Your task to perform on an android device: turn off priority inbox in the gmail app Image 0: 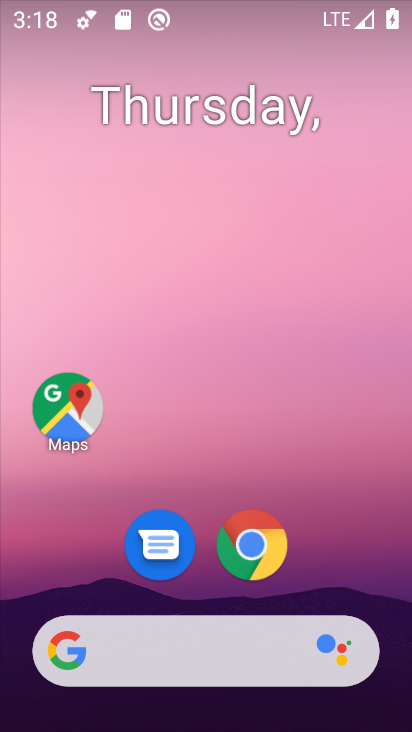
Step 0: drag from (320, 561) to (202, 38)
Your task to perform on an android device: turn off priority inbox in the gmail app Image 1: 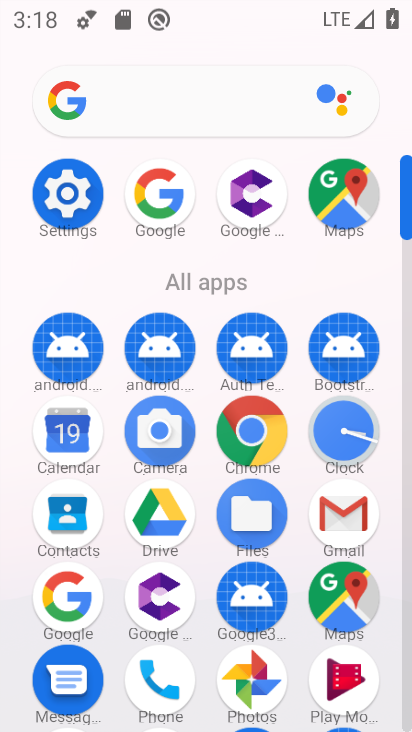
Step 1: click (343, 514)
Your task to perform on an android device: turn off priority inbox in the gmail app Image 2: 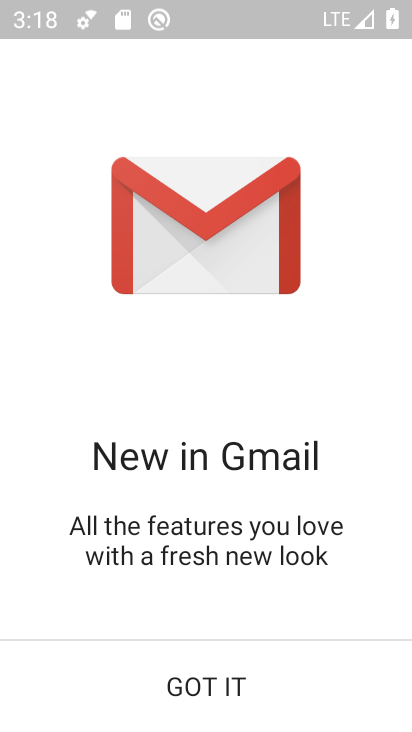
Step 2: click (205, 687)
Your task to perform on an android device: turn off priority inbox in the gmail app Image 3: 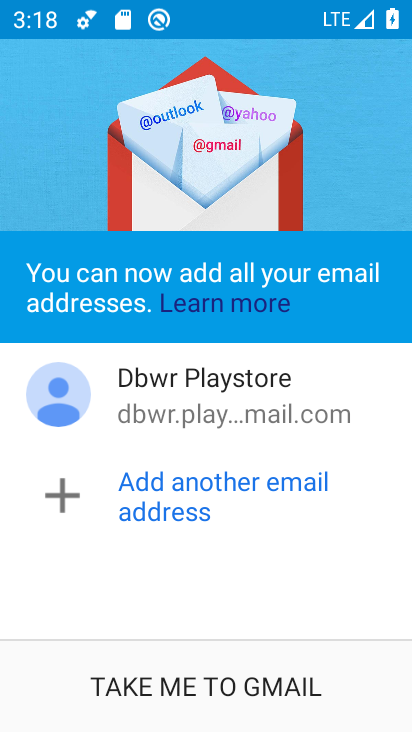
Step 3: click (205, 686)
Your task to perform on an android device: turn off priority inbox in the gmail app Image 4: 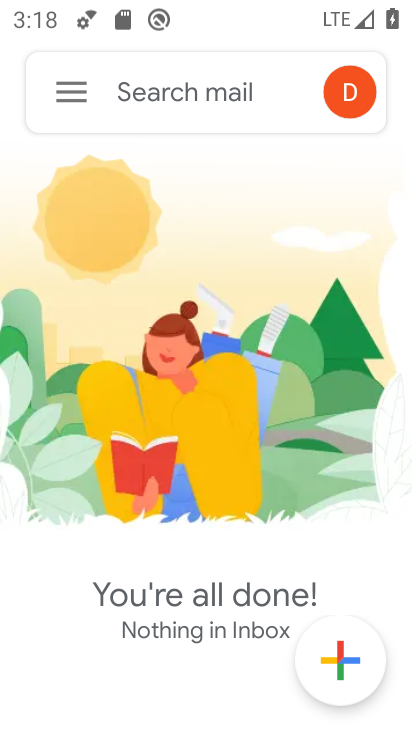
Step 4: click (73, 84)
Your task to perform on an android device: turn off priority inbox in the gmail app Image 5: 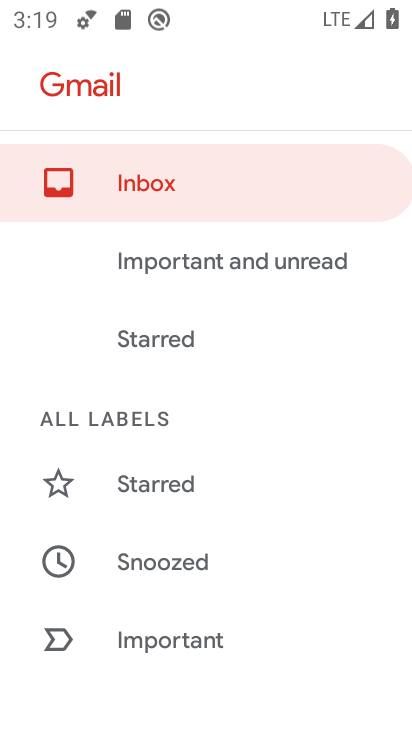
Step 5: drag from (215, 529) to (222, 413)
Your task to perform on an android device: turn off priority inbox in the gmail app Image 6: 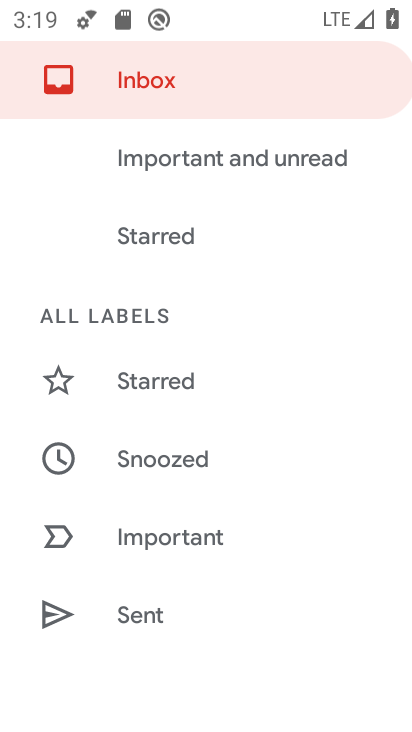
Step 6: drag from (171, 510) to (197, 434)
Your task to perform on an android device: turn off priority inbox in the gmail app Image 7: 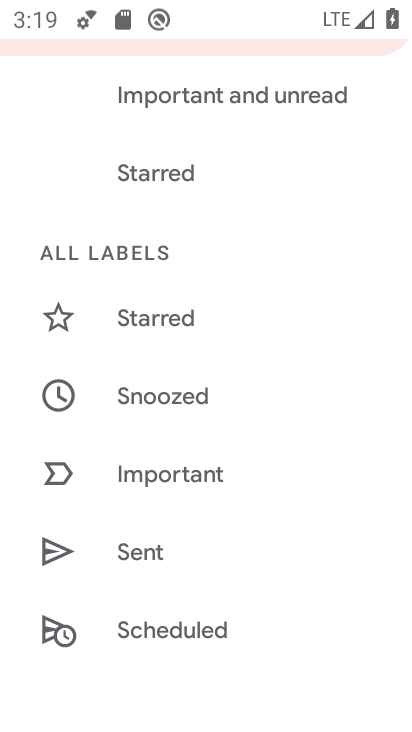
Step 7: drag from (166, 563) to (209, 436)
Your task to perform on an android device: turn off priority inbox in the gmail app Image 8: 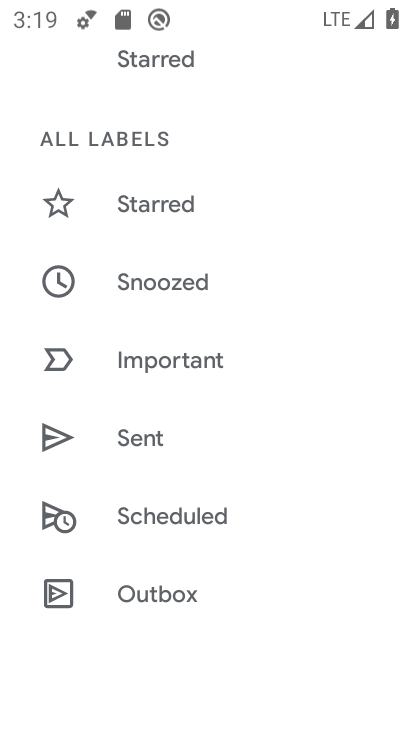
Step 8: drag from (166, 570) to (202, 458)
Your task to perform on an android device: turn off priority inbox in the gmail app Image 9: 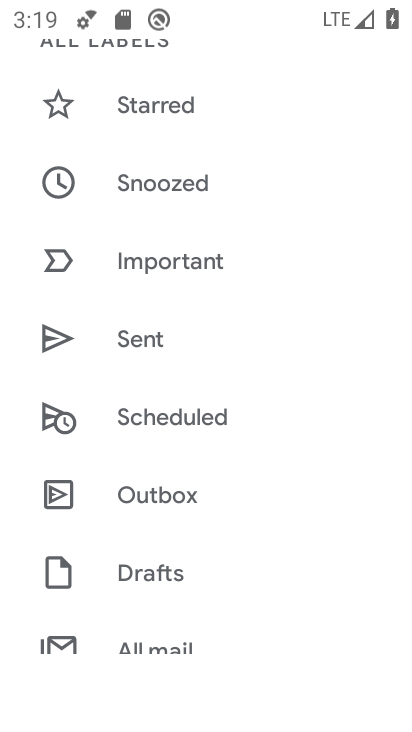
Step 9: drag from (162, 609) to (171, 492)
Your task to perform on an android device: turn off priority inbox in the gmail app Image 10: 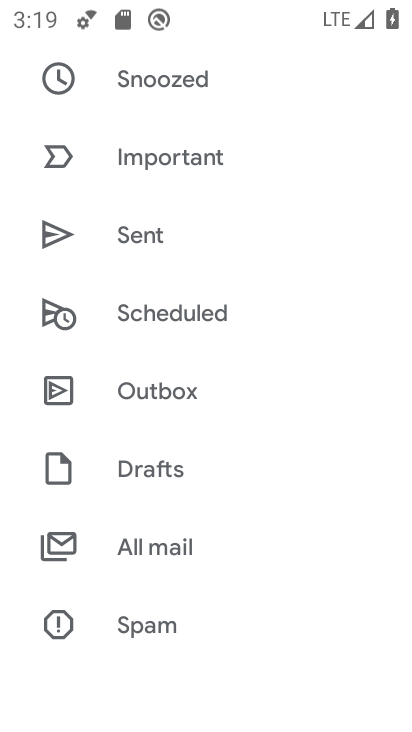
Step 10: drag from (118, 592) to (119, 480)
Your task to perform on an android device: turn off priority inbox in the gmail app Image 11: 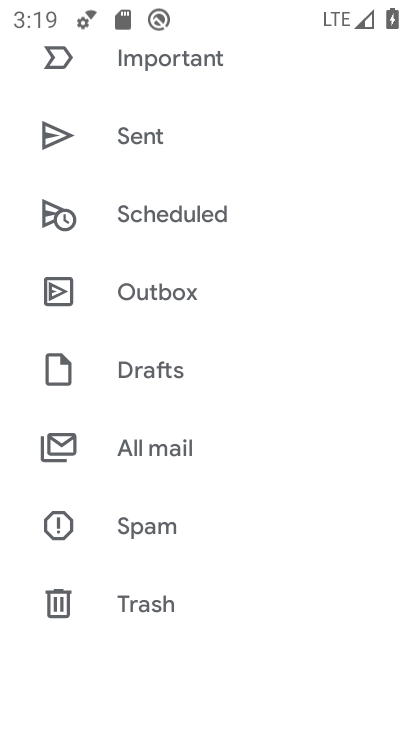
Step 11: drag from (148, 575) to (205, 464)
Your task to perform on an android device: turn off priority inbox in the gmail app Image 12: 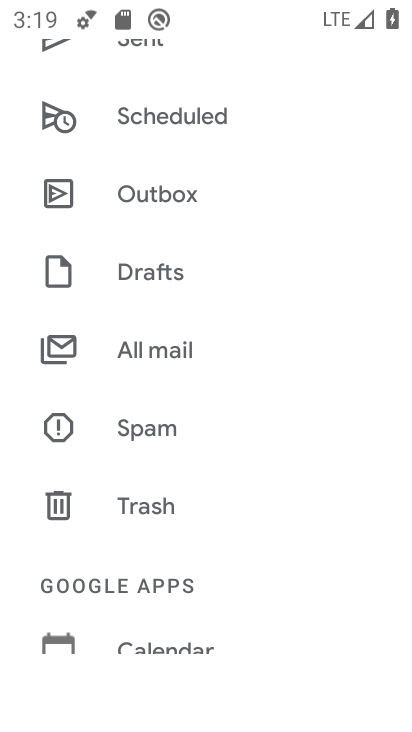
Step 12: drag from (134, 549) to (168, 428)
Your task to perform on an android device: turn off priority inbox in the gmail app Image 13: 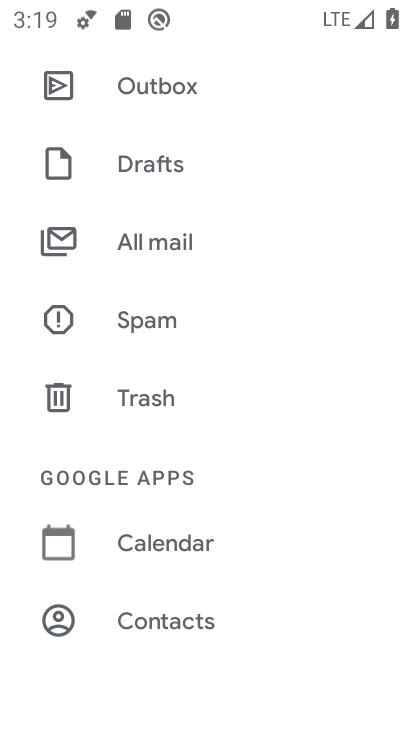
Step 13: drag from (162, 574) to (151, 425)
Your task to perform on an android device: turn off priority inbox in the gmail app Image 14: 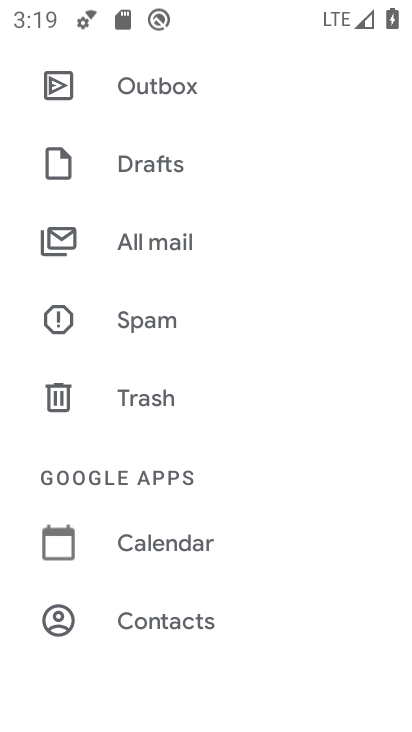
Step 14: drag from (134, 586) to (173, 391)
Your task to perform on an android device: turn off priority inbox in the gmail app Image 15: 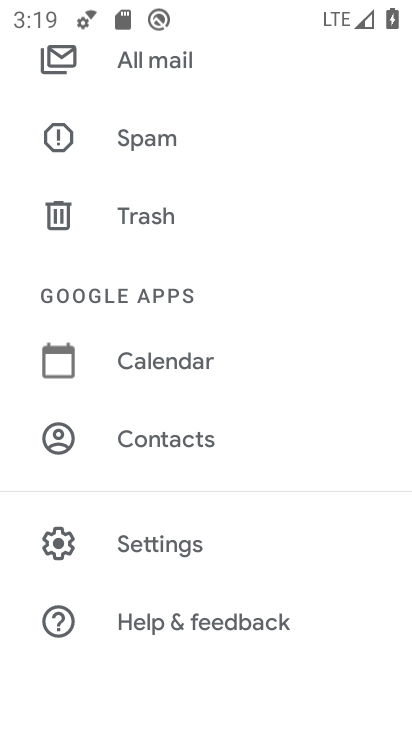
Step 15: click (146, 544)
Your task to perform on an android device: turn off priority inbox in the gmail app Image 16: 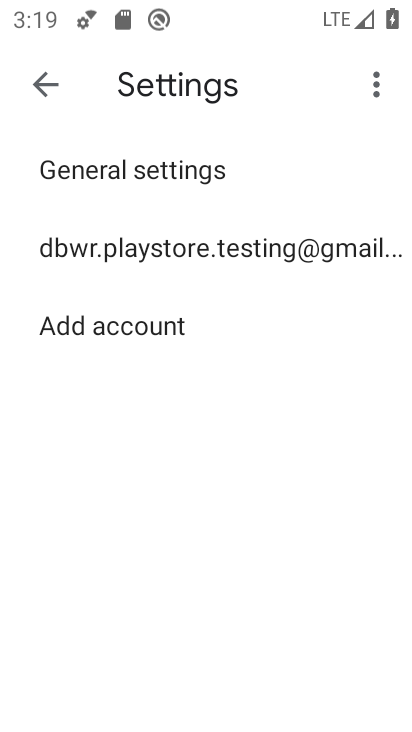
Step 16: click (275, 248)
Your task to perform on an android device: turn off priority inbox in the gmail app Image 17: 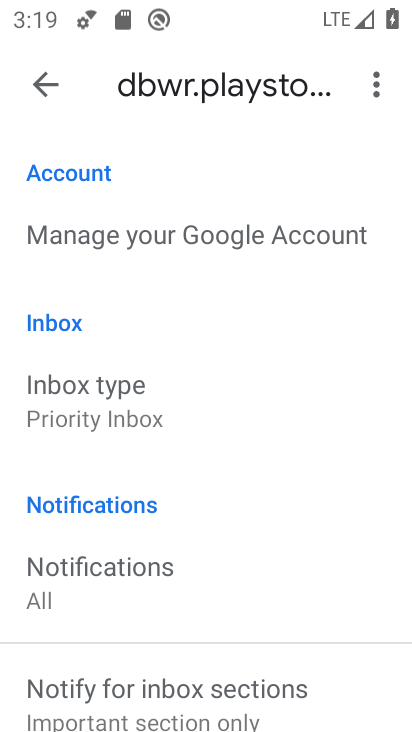
Step 17: click (107, 409)
Your task to perform on an android device: turn off priority inbox in the gmail app Image 18: 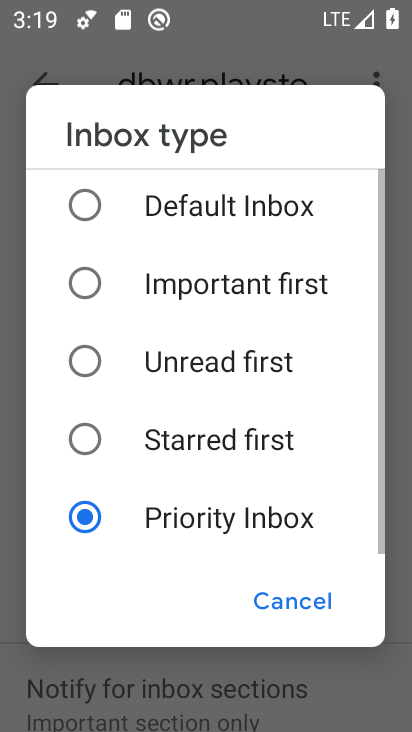
Step 18: click (86, 217)
Your task to perform on an android device: turn off priority inbox in the gmail app Image 19: 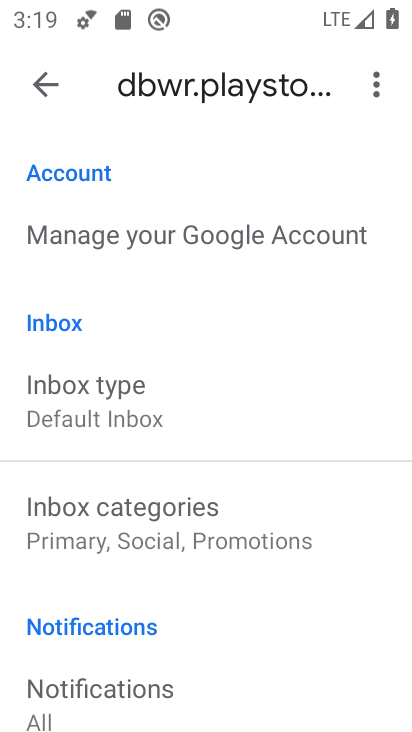
Step 19: task complete